Your task to perform on an android device: Go to Google maps Image 0: 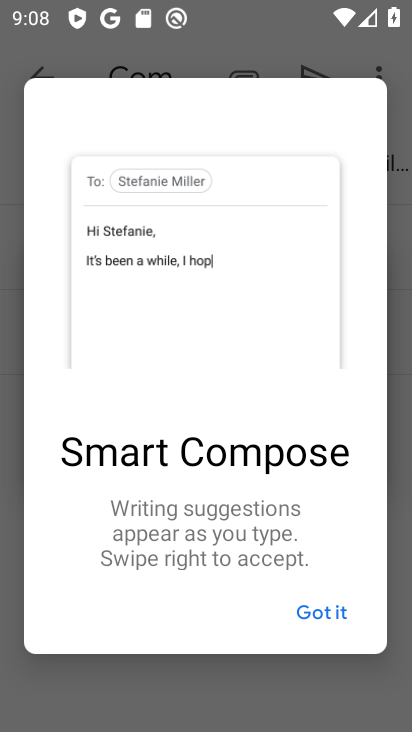
Step 0: press home button
Your task to perform on an android device: Go to Google maps Image 1: 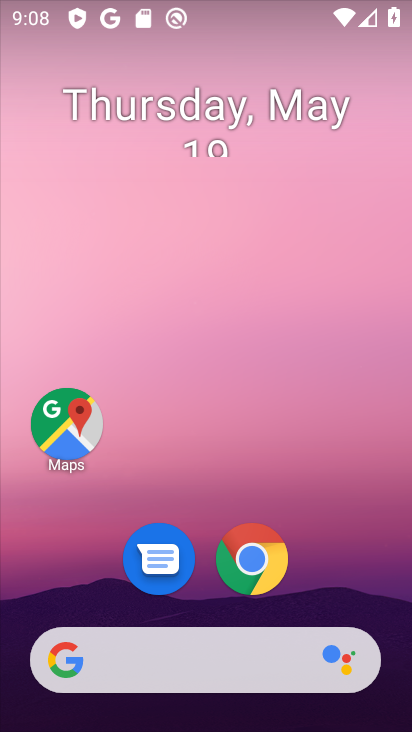
Step 1: click (80, 415)
Your task to perform on an android device: Go to Google maps Image 2: 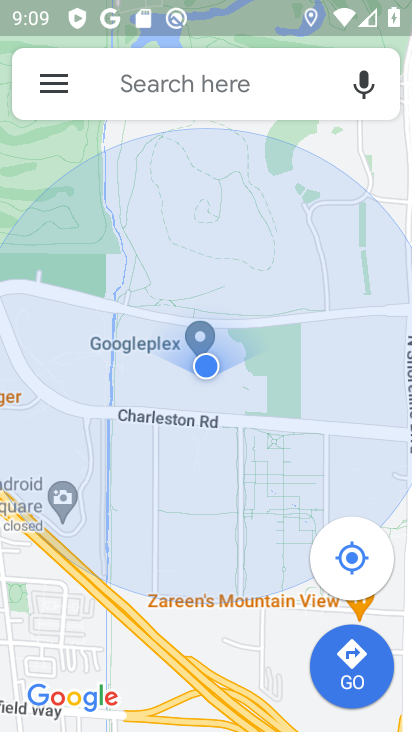
Step 2: task complete